Your task to perform on an android device: turn off javascript in the chrome app Image 0: 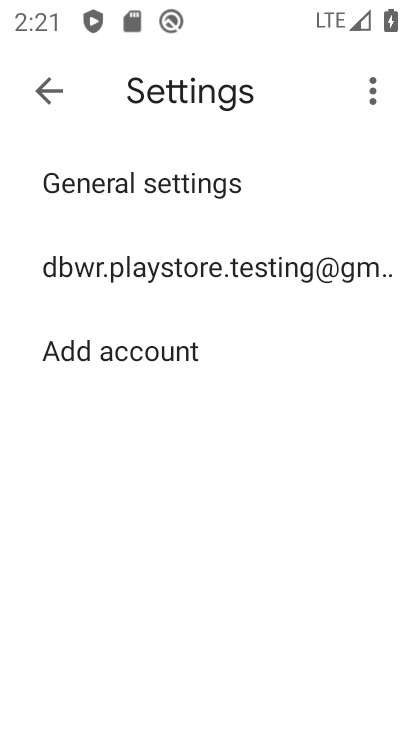
Step 0: press home button
Your task to perform on an android device: turn off javascript in the chrome app Image 1: 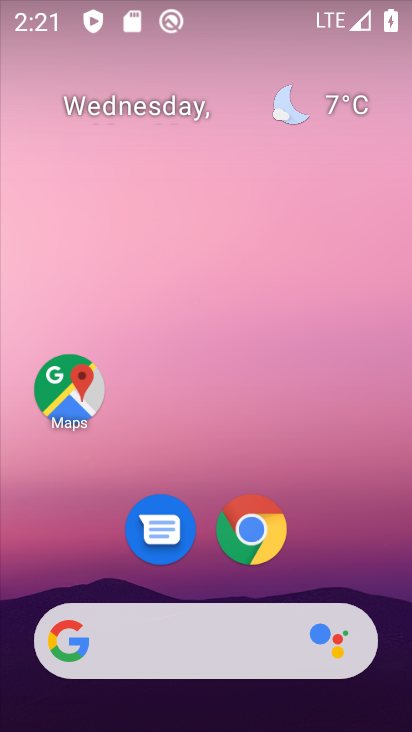
Step 1: drag from (343, 518) to (408, 206)
Your task to perform on an android device: turn off javascript in the chrome app Image 2: 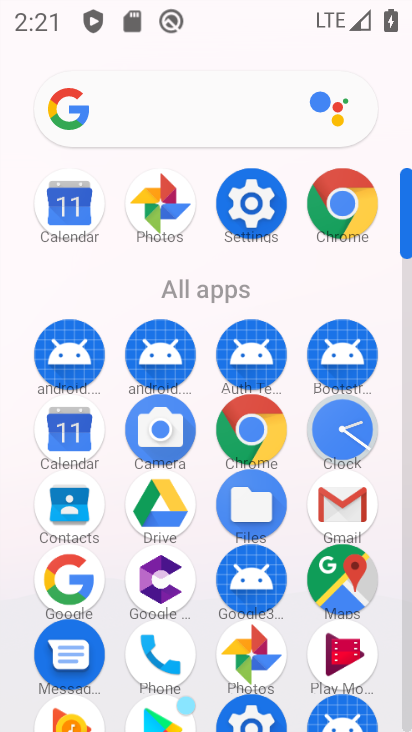
Step 2: click (364, 242)
Your task to perform on an android device: turn off javascript in the chrome app Image 3: 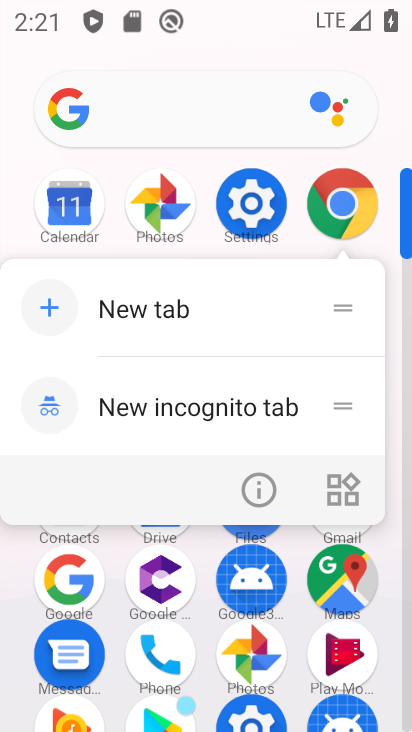
Step 3: click (363, 236)
Your task to perform on an android device: turn off javascript in the chrome app Image 4: 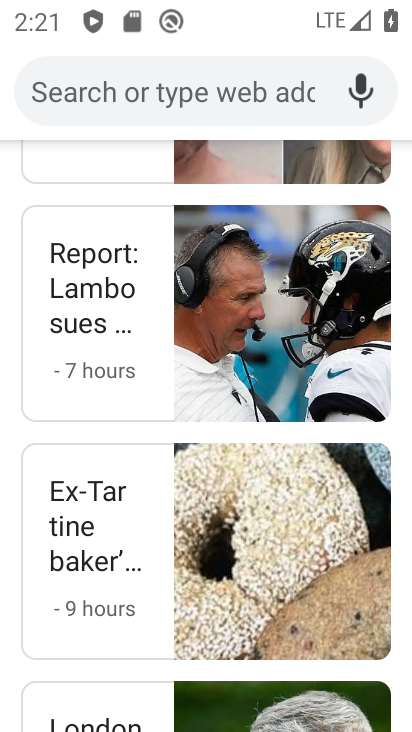
Step 4: drag from (403, 119) to (327, 495)
Your task to perform on an android device: turn off javascript in the chrome app Image 5: 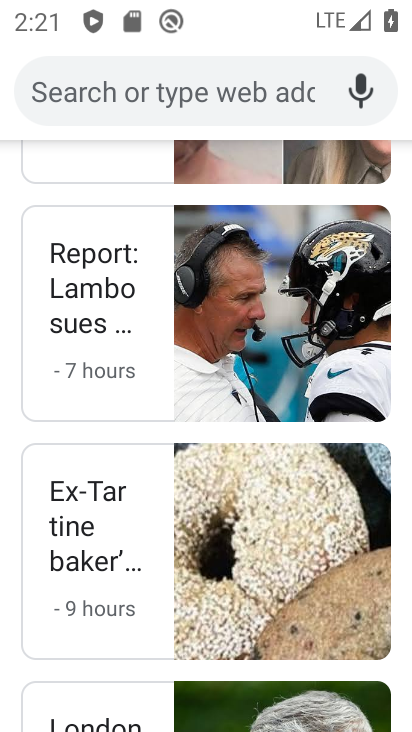
Step 5: drag from (319, 135) to (265, 439)
Your task to perform on an android device: turn off javascript in the chrome app Image 6: 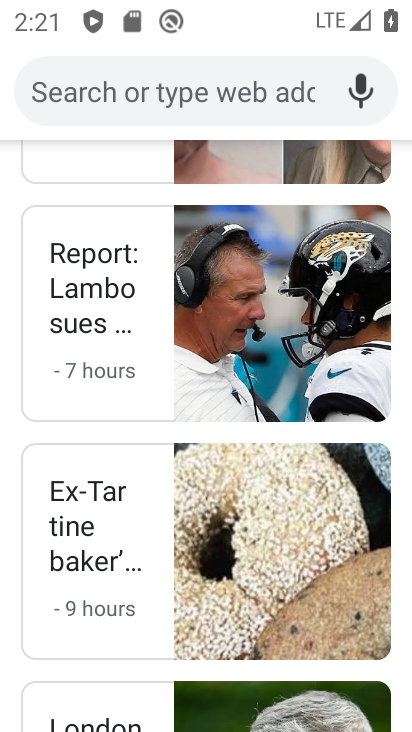
Step 6: drag from (112, 125) to (3, 418)
Your task to perform on an android device: turn off javascript in the chrome app Image 7: 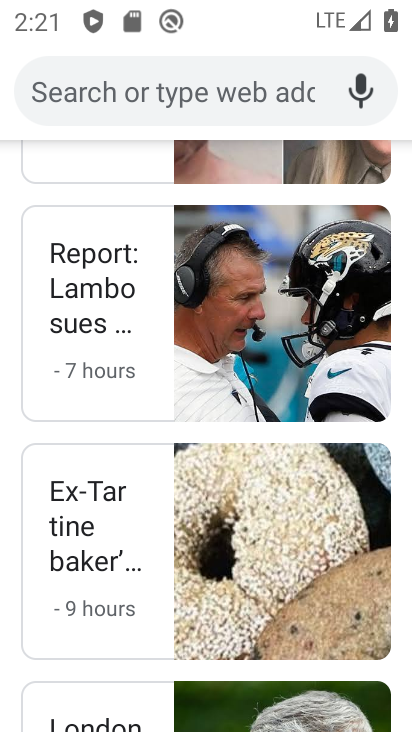
Step 7: drag from (103, 167) to (36, 617)
Your task to perform on an android device: turn off javascript in the chrome app Image 8: 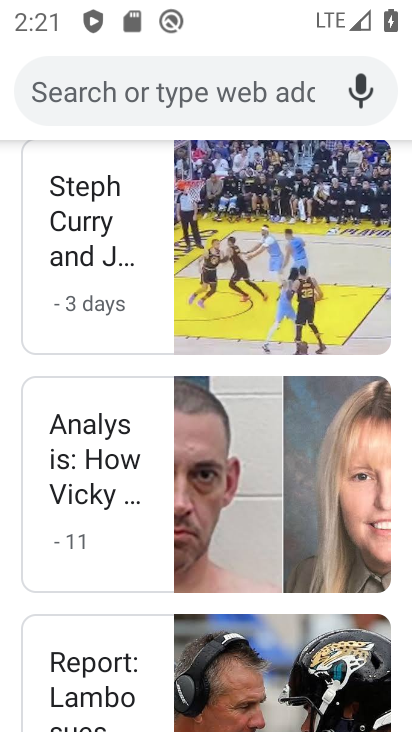
Step 8: drag from (142, 190) to (28, 649)
Your task to perform on an android device: turn off javascript in the chrome app Image 9: 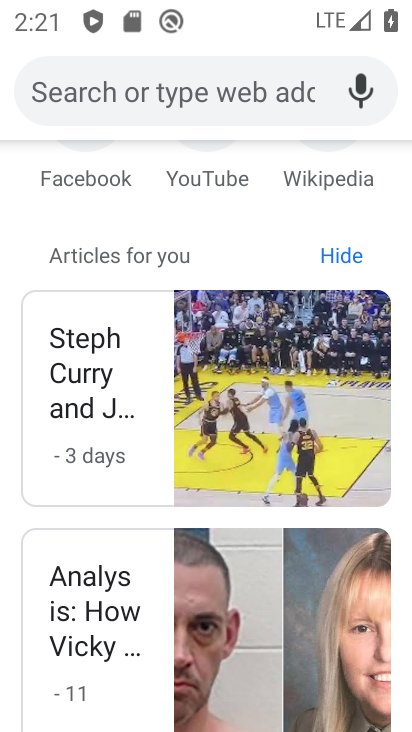
Step 9: drag from (140, 170) to (73, 623)
Your task to perform on an android device: turn off javascript in the chrome app Image 10: 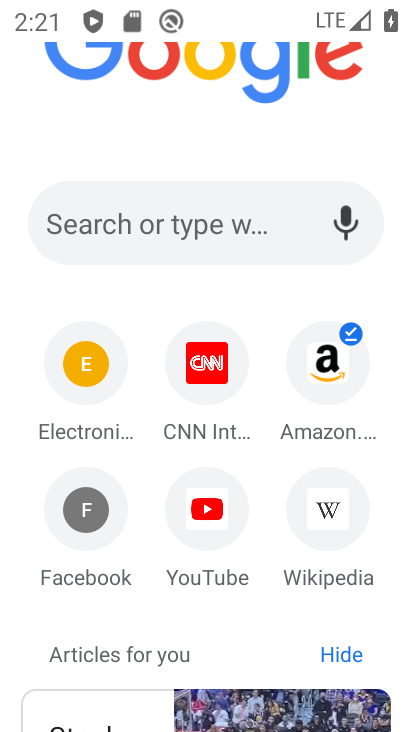
Step 10: drag from (268, 126) to (177, 535)
Your task to perform on an android device: turn off javascript in the chrome app Image 11: 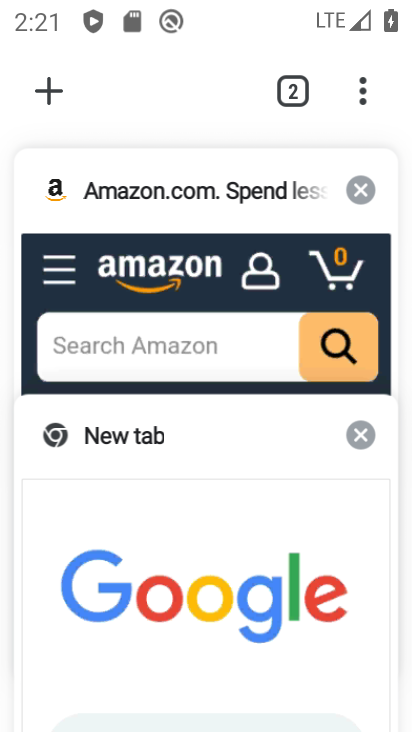
Step 11: drag from (220, 531) to (340, 144)
Your task to perform on an android device: turn off javascript in the chrome app Image 12: 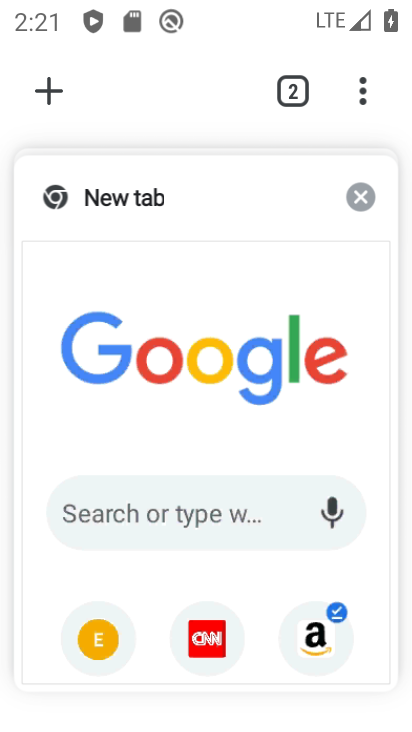
Step 12: click (374, 89)
Your task to perform on an android device: turn off javascript in the chrome app Image 13: 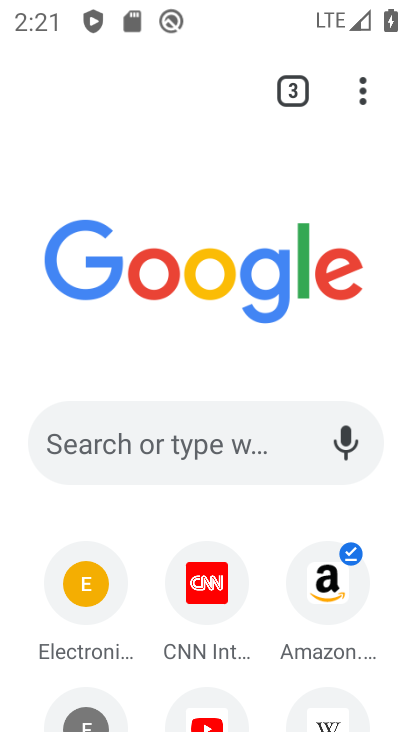
Step 13: drag from (374, 89) to (104, 555)
Your task to perform on an android device: turn off javascript in the chrome app Image 14: 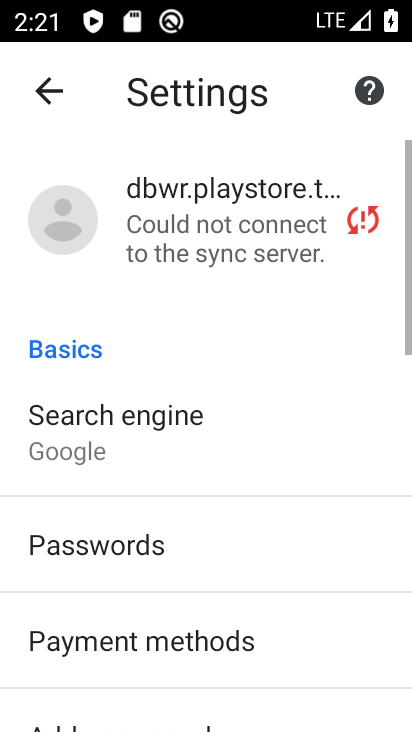
Step 14: drag from (102, 580) to (231, 167)
Your task to perform on an android device: turn off javascript in the chrome app Image 15: 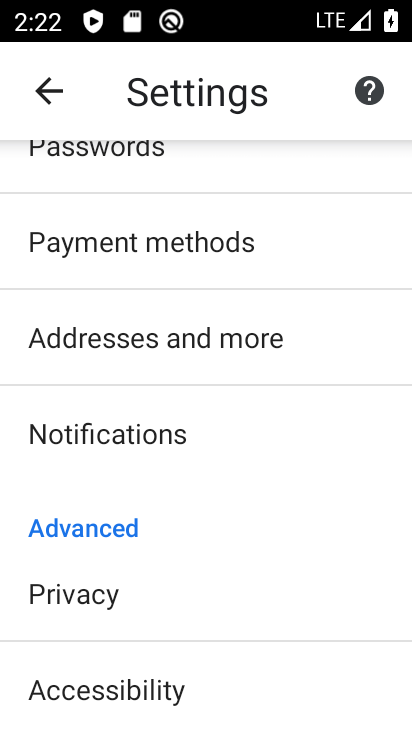
Step 15: drag from (86, 603) to (130, 167)
Your task to perform on an android device: turn off javascript in the chrome app Image 16: 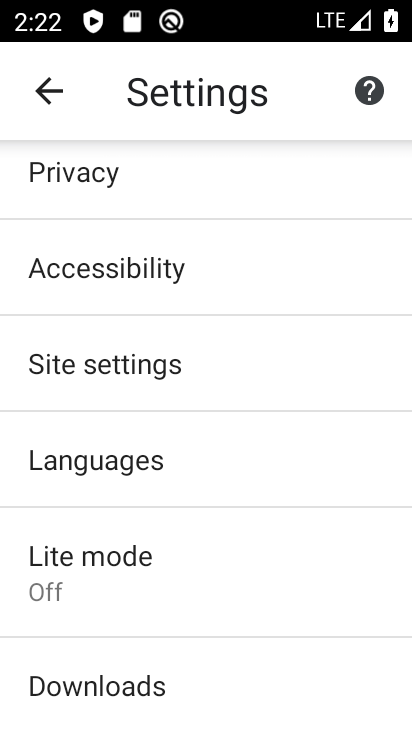
Step 16: click (130, 382)
Your task to perform on an android device: turn off javascript in the chrome app Image 17: 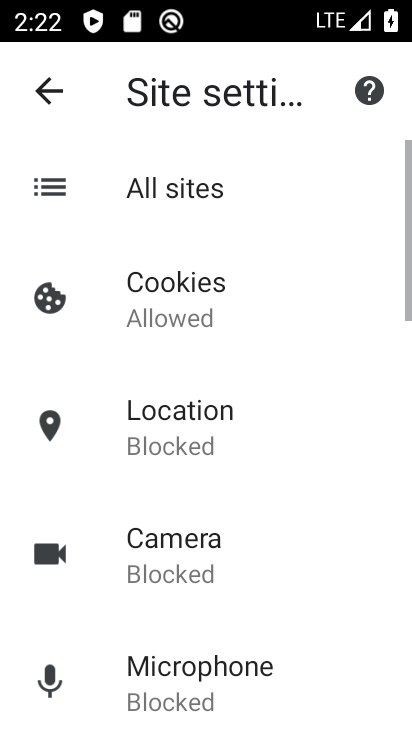
Step 17: drag from (193, 359) to (237, 227)
Your task to perform on an android device: turn off javascript in the chrome app Image 18: 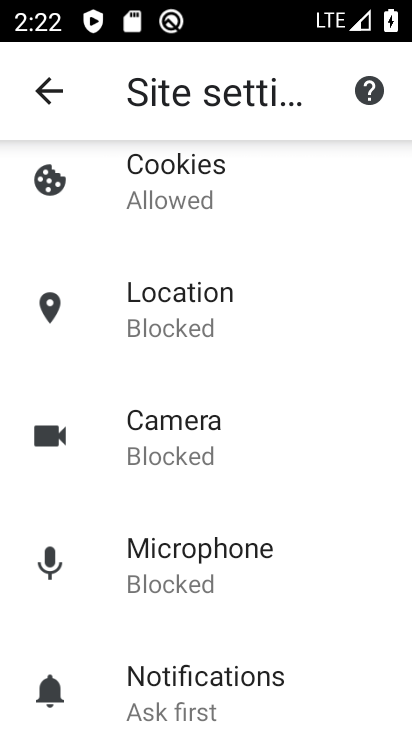
Step 18: drag from (113, 702) to (220, 267)
Your task to perform on an android device: turn off javascript in the chrome app Image 19: 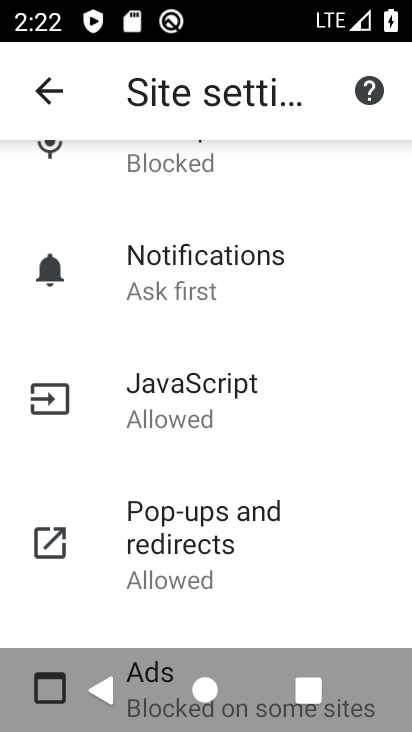
Step 19: click (149, 411)
Your task to perform on an android device: turn off javascript in the chrome app Image 20: 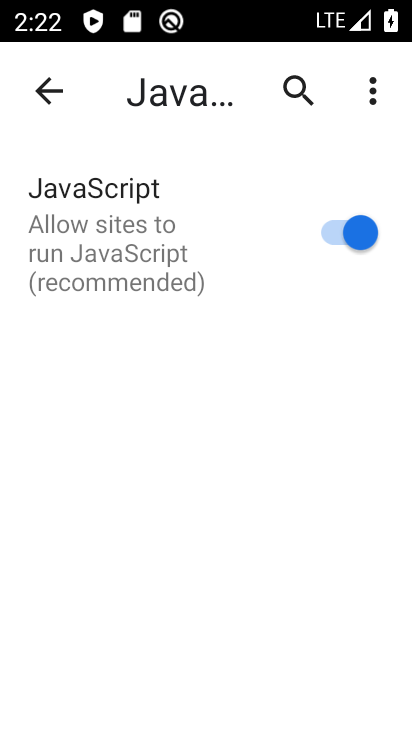
Step 20: click (347, 232)
Your task to perform on an android device: turn off javascript in the chrome app Image 21: 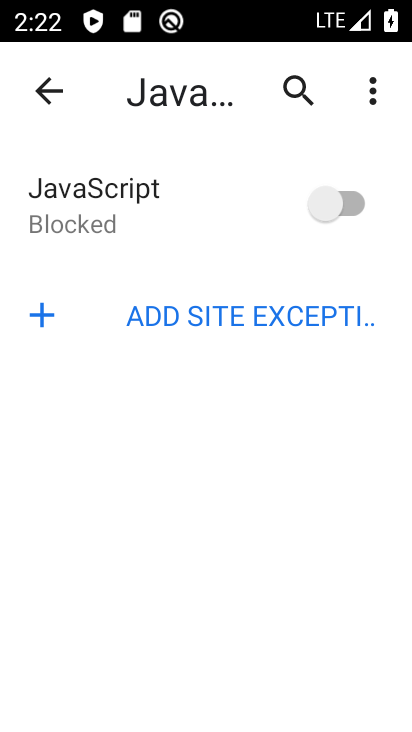
Step 21: task complete